Your task to perform on an android device: Open Google Maps and go to "Timeline" Image 0: 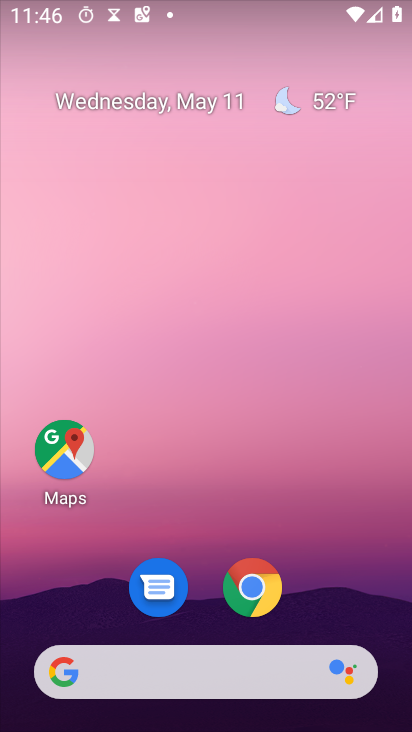
Step 0: drag from (171, 697) to (342, 106)
Your task to perform on an android device: Open Google Maps and go to "Timeline" Image 1: 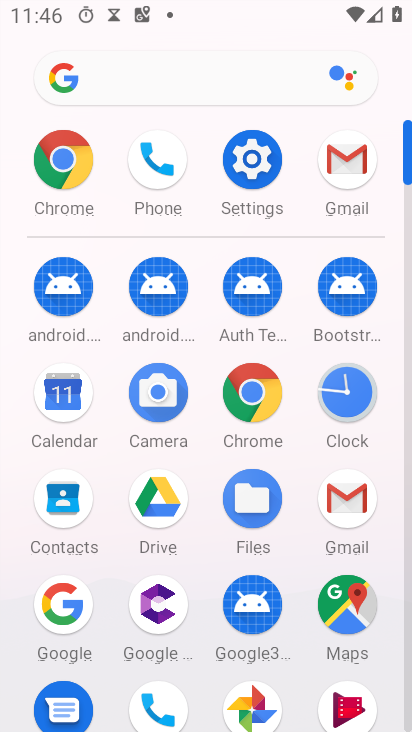
Step 1: click (338, 606)
Your task to perform on an android device: Open Google Maps and go to "Timeline" Image 2: 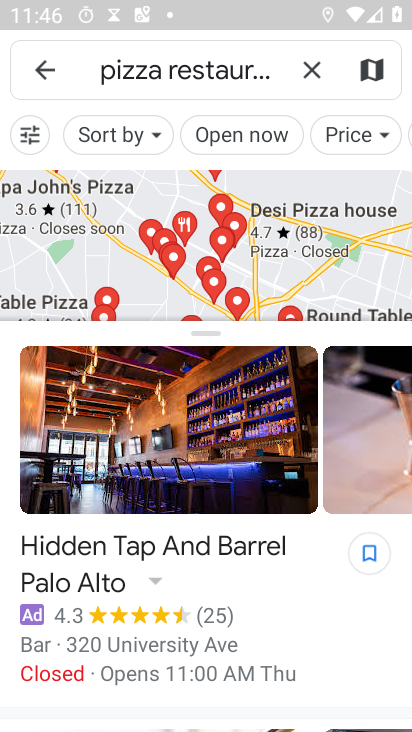
Step 2: click (38, 90)
Your task to perform on an android device: Open Google Maps and go to "Timeline" Image 3: 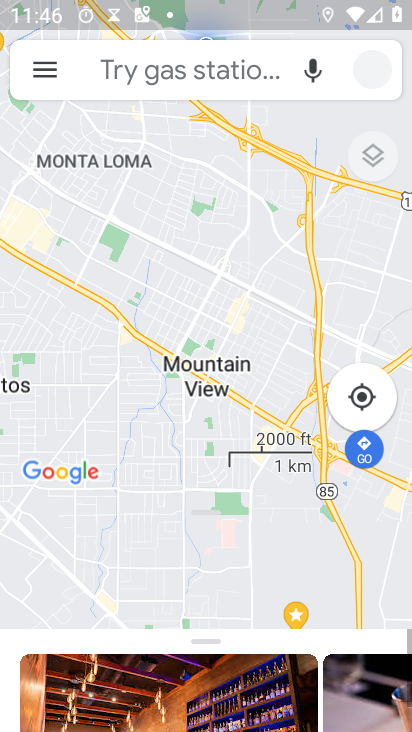
Step 3: click (36, 81)
Your task to perform on an android device: Open Google Maps and go to "Timeline" Image 4: 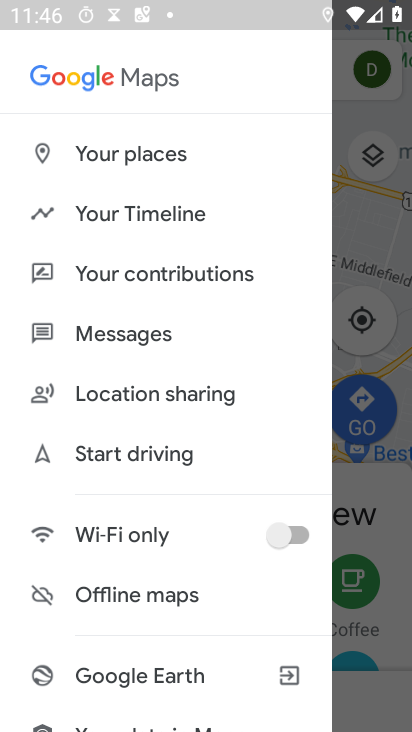
Step 4: click (100, 219)
Your task to perform on an android device: Open Google Maps and go to "Timeline" Image 5: 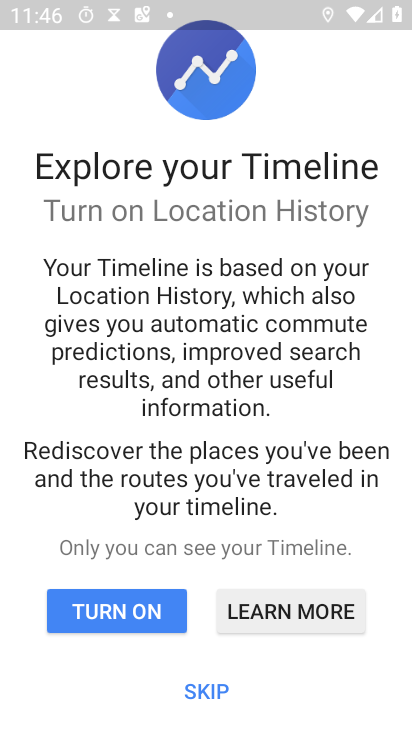
Step 5: click (185, 682)
Your task to perform on an android device: Open Google Maps and go to "Timeline" Image 6: 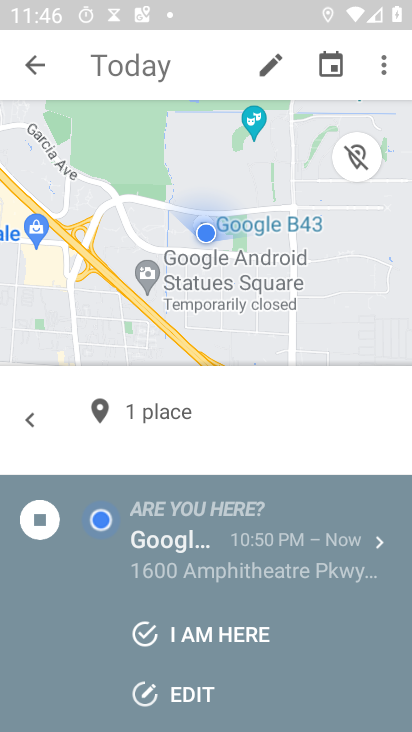
Step 6: task complete